Your task to perform on an android device: Go to Google maps Image 0: 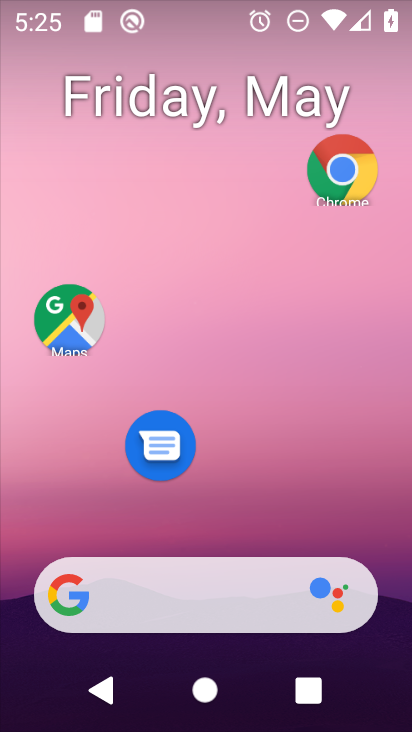
Step 0: click (63, 314)
Your task to perform on an android device: Go to Google maps Image 1: 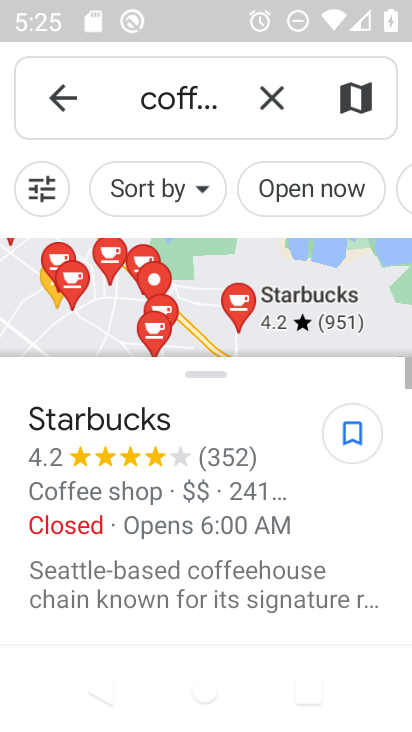
Step 1: task complete